Your task to perform on an android device: set the stopwatch Image 0: 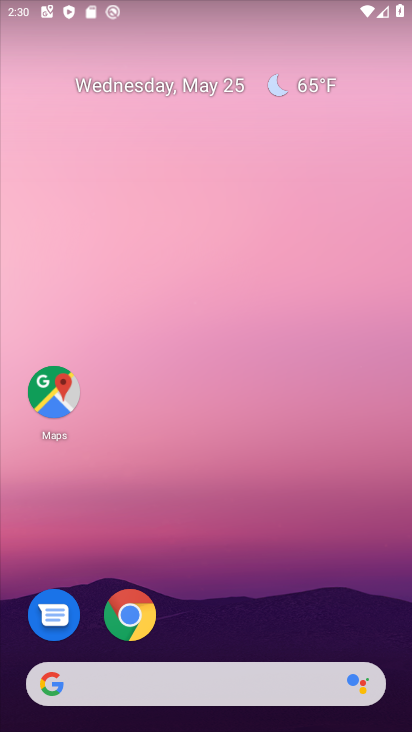
Step 0: drag from (398, 696) to (367, 135)
Your task to perform on an android device: set the stopwatch Image 1: 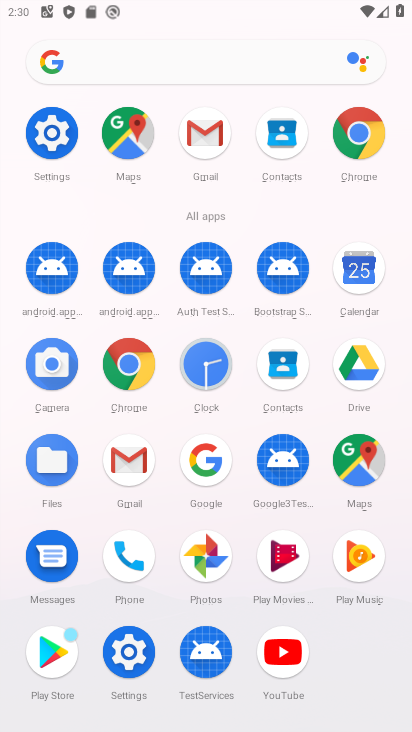
Step 1: click (217, 360)
Your task to perform on an android device: set the stopwatch Image 2: 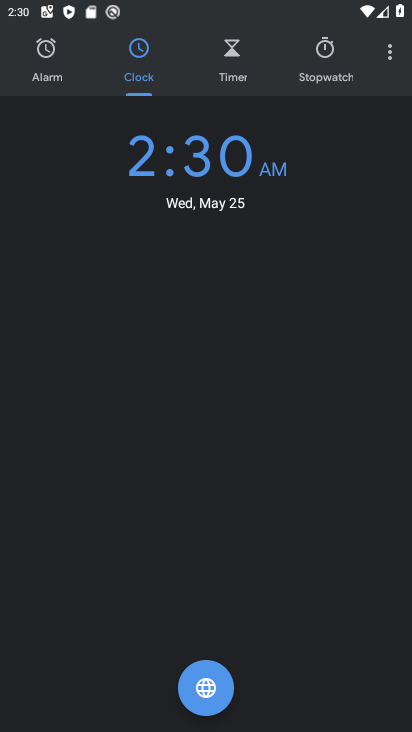
Step 2: click (329, 56)
Your task to perform on an android device: set the stopwatch Image 3: 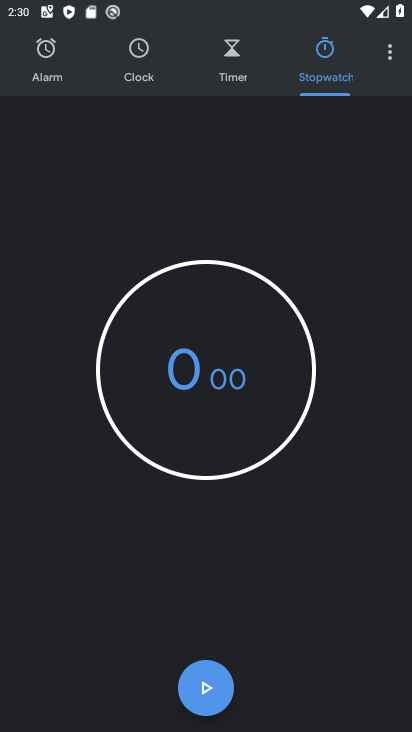
Step 3: click (203, 694)
Your task to perform on an android device: set the stopwatch Image 4: 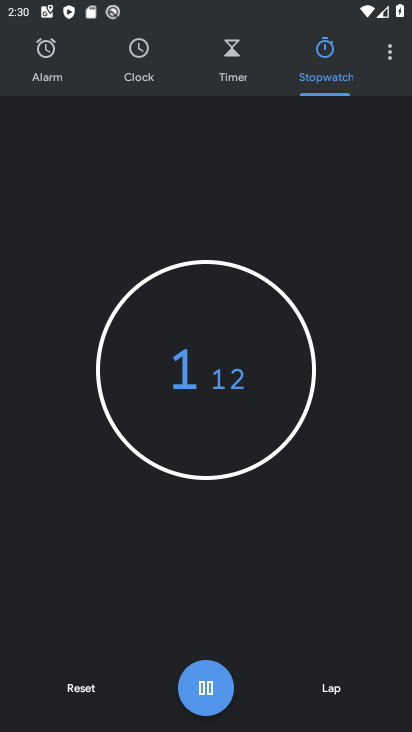
Step 4: task complete